Your task to perform on an android device: change timer sound Image 0: 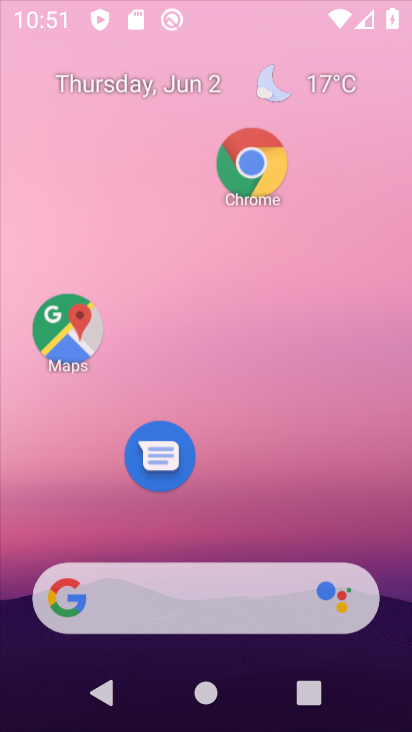
Step 0: press home button
Your task to perform on an android device: change timer sound Image 1: 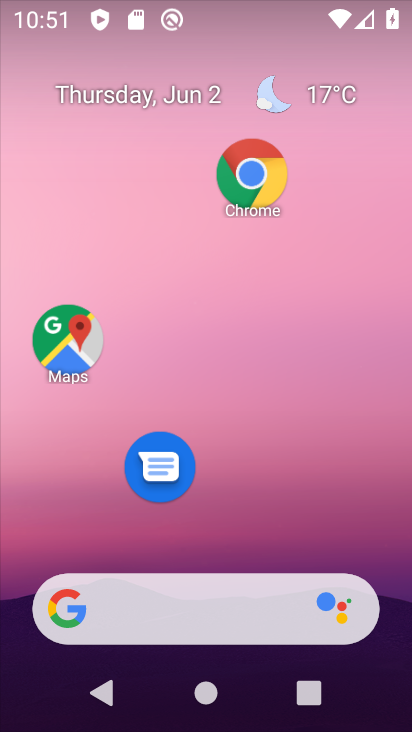
Step 1: drag from (279, 542) to (280, 14)
Your task to perform on an android device: change timer sound Image 2: 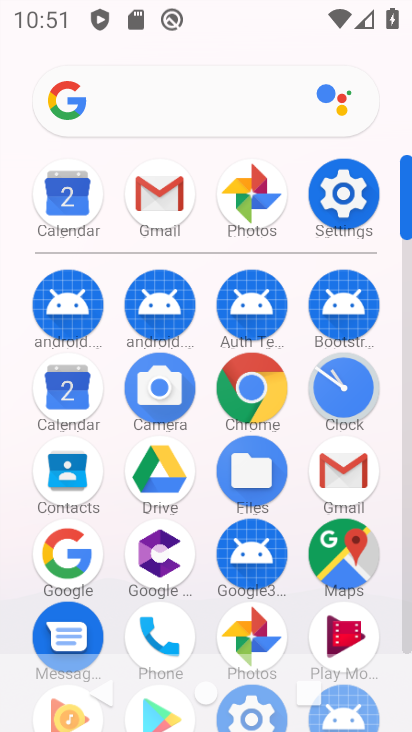
Step 2: click (352, 401)
Your task to perform on an android device: change timer sound Image 3: 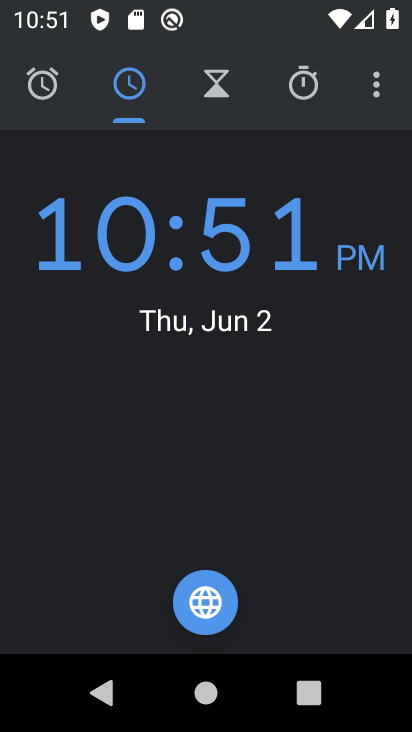
Step 3: click (373, 85)
Your task to perform on an android device: change timer sound Image 4: 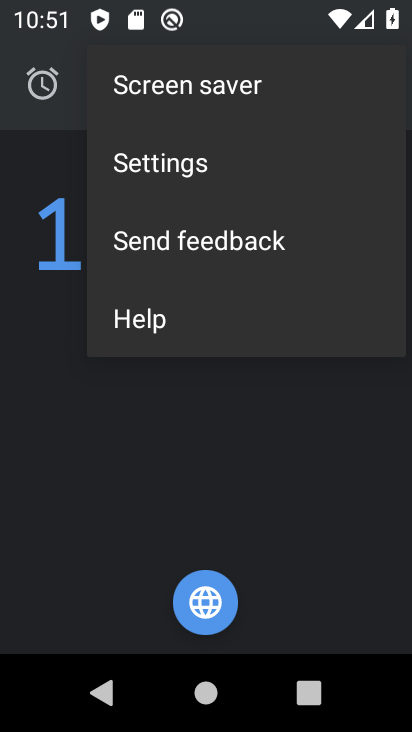
Step 4: click (163, 155)
Your task to perform on an android device: change timer sound Image 5: 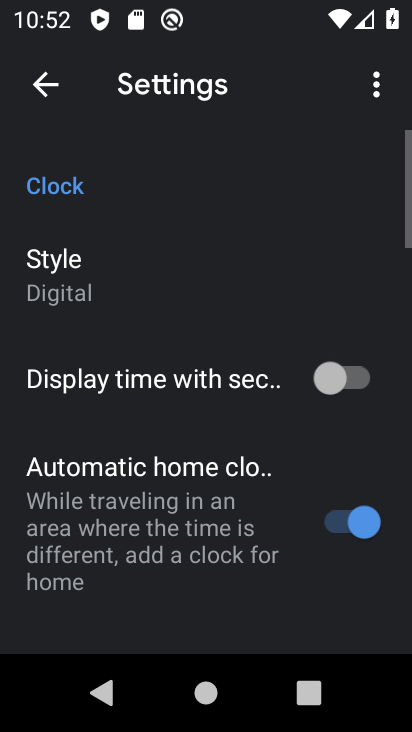
Step 5: drag from (270, 569) to (260, 110)
Your task to perform on an android device: change timer sound Image 6: 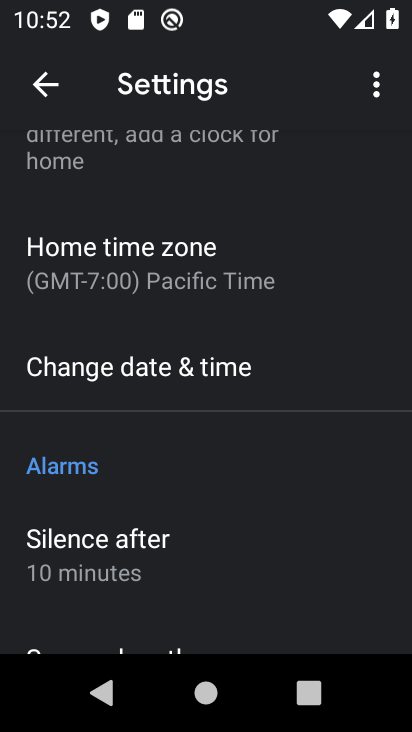
Step 6: drag from (294, 492) to (264, 97)
Your task to perform on an android device: change timer sound Image 7: 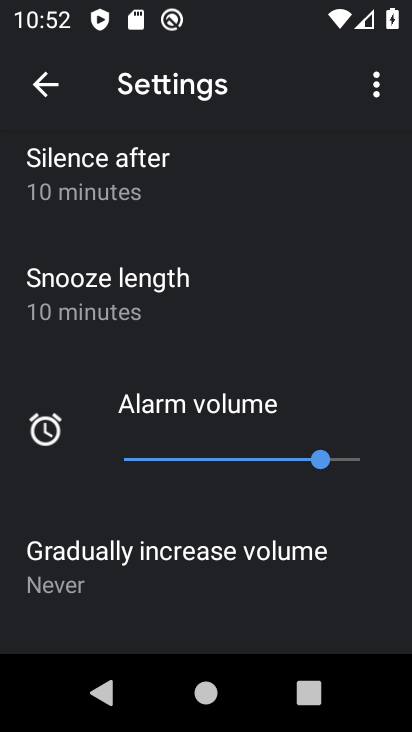
Step 7: drag from (252, 351) to (283, 80)
Your task to perform on an android device: change timer sound Image 8: 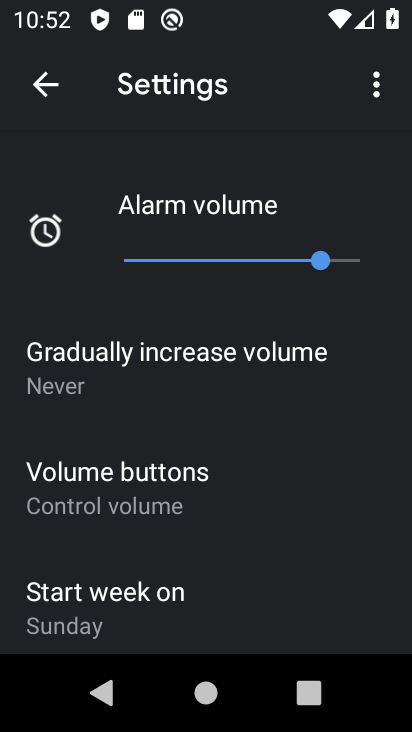
Step 8: drag from (268, 498) to (278, 153)
Your task to perform on an android device: change timer sound Image 9: 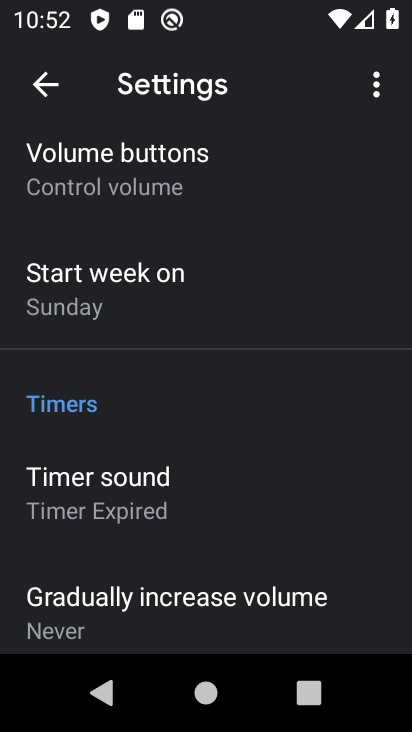
Step 9: click (126, 476)
Your task to perform on an android device: change timer sound Image 10: 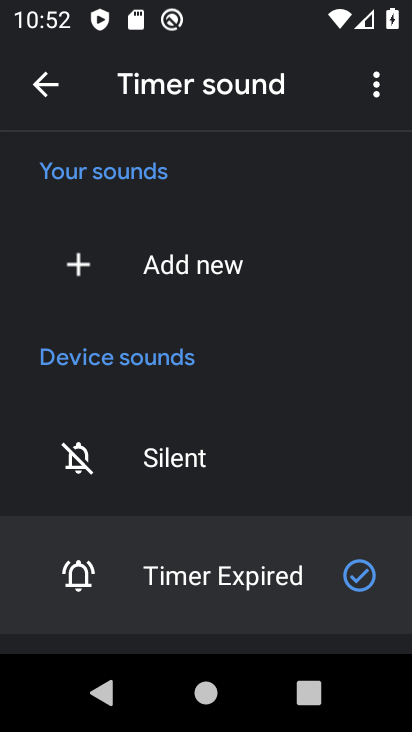
Step 10: drag from (260, 479) to (320, 214)
Your task to perform on an android device: change timer sound Image 11: 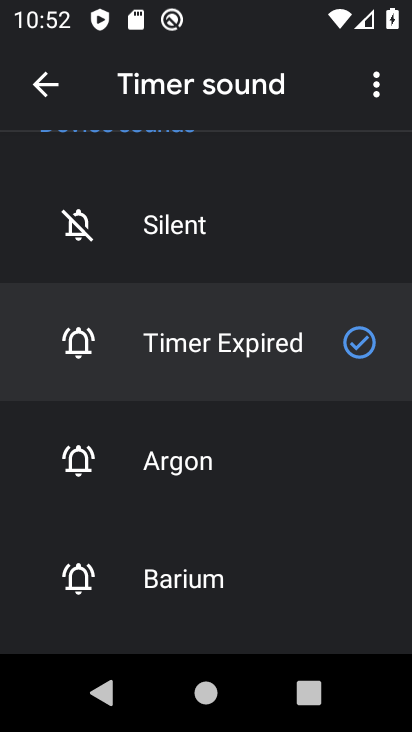
Step 11: click (161, 584)
Your task to perform on an android device: change timer sound Image 12: 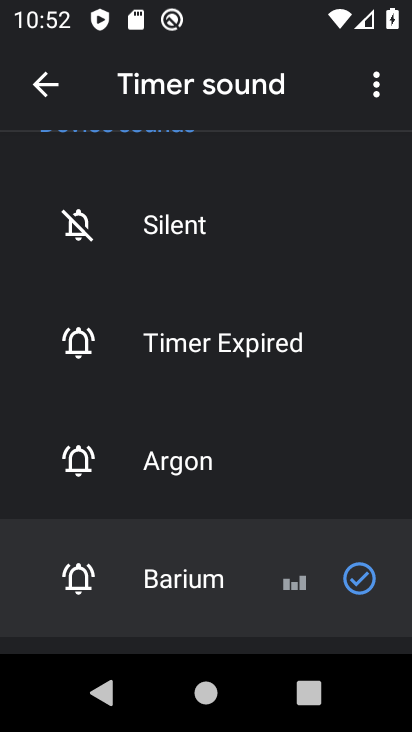
Step 12: task complete